Your task to perform on an android device: Open calendar and show me the third week of next month Image 0: 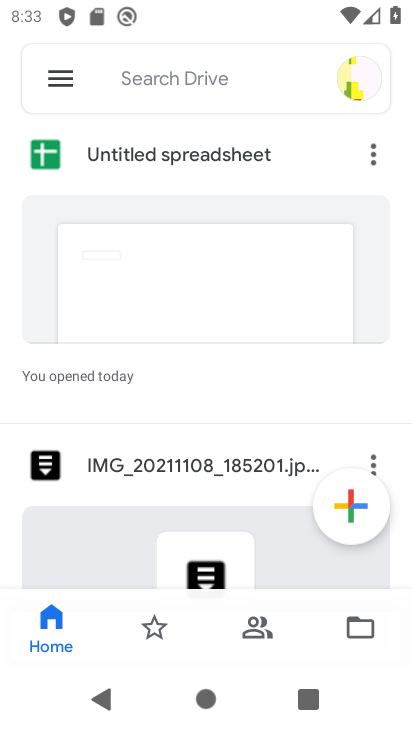
Step 0: press home button
Your task to perform on an android device: Open calendar and show me the third week of next month Image 1: 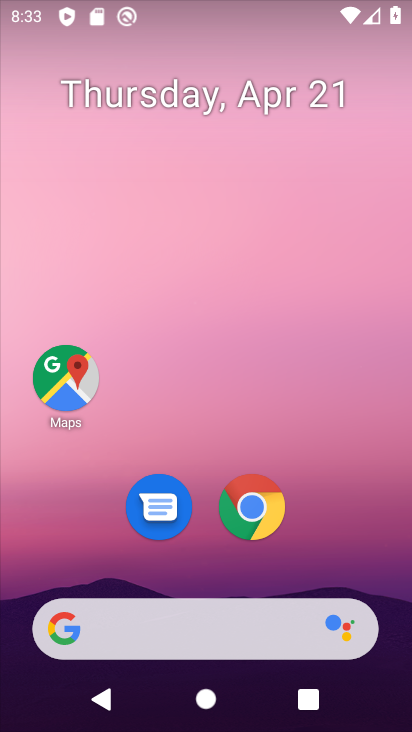
Step 1: drag from (340, 553) to (355, 146)
Your task to perform on an android device: Open calendar and show me the third week of next month Image 2: 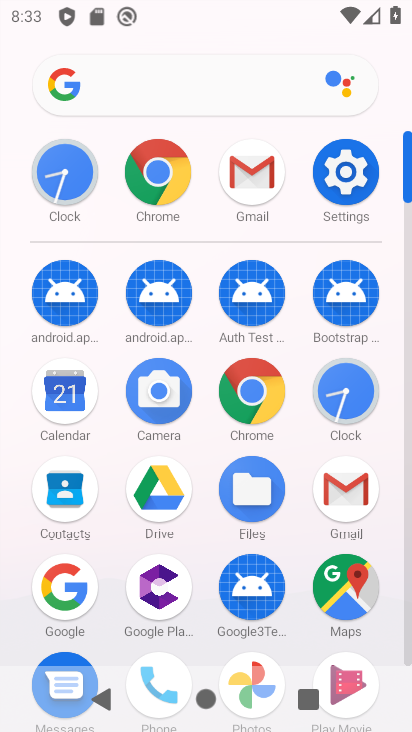
Step 2: drag from (377, 454) to (367, 199)
Your task to perform on an android device: Open calendar and show me the third week of next month Image 3: 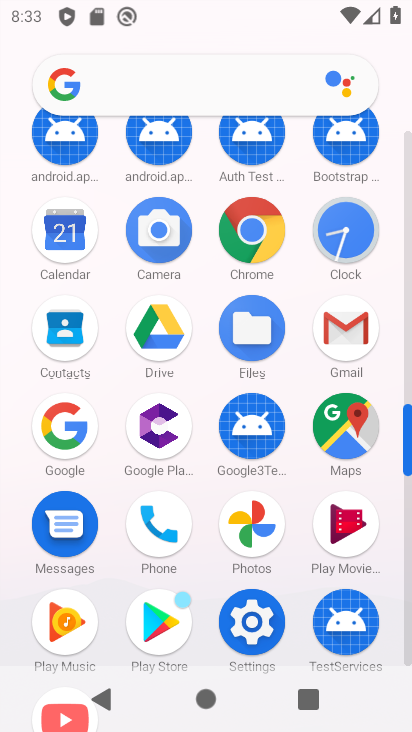
Step 3: click (72, 240)
Your task to perform on an android device: Open calendar and show me the third week of next month Image 4: 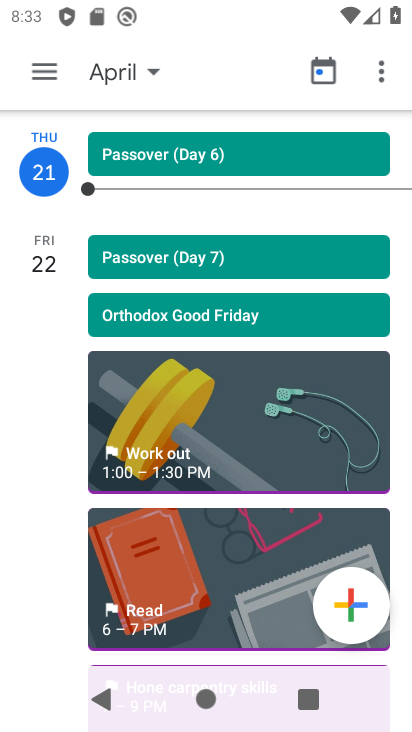
Step 4: click (125, 68)
Your task to perform on an android device: Open calendar and show me the third week of next month Image 5: 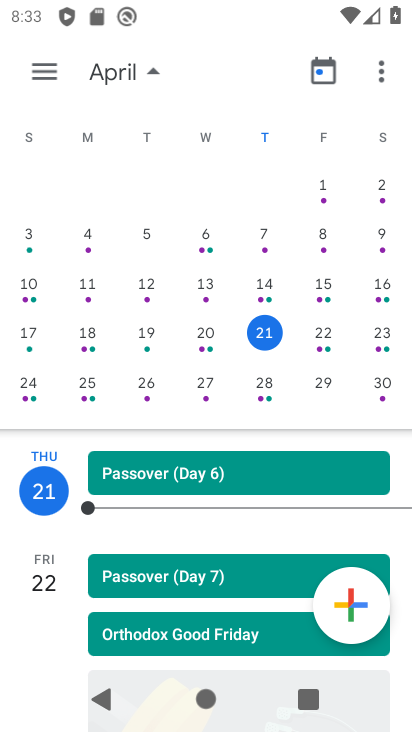
Step 5: drag from (375, 162) to (7, 182)
Your task to perform on an android device: Open calendar and show me the third week of next month Image 6: 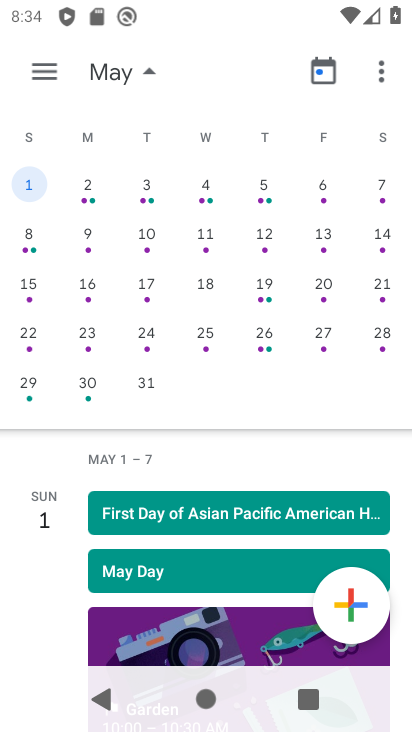
Step 6: click (26, 287)
Your task to perform on an android device: Open calendar and show me the third week of next month Image 7: 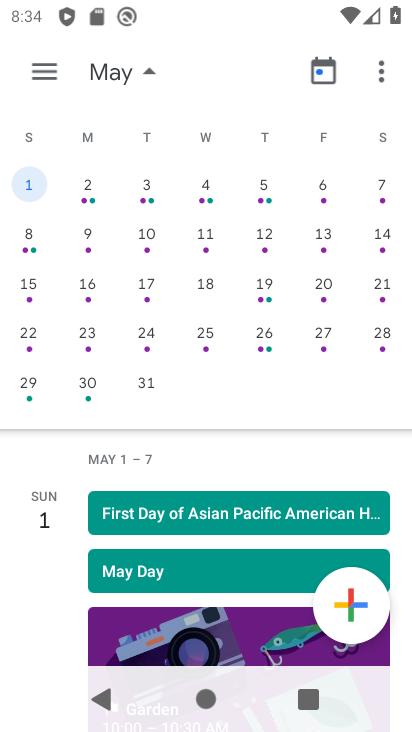
Step 7: click (29, 286)
Your task to perform on an android device: Open calendar and show me the third week of next month Image 8: 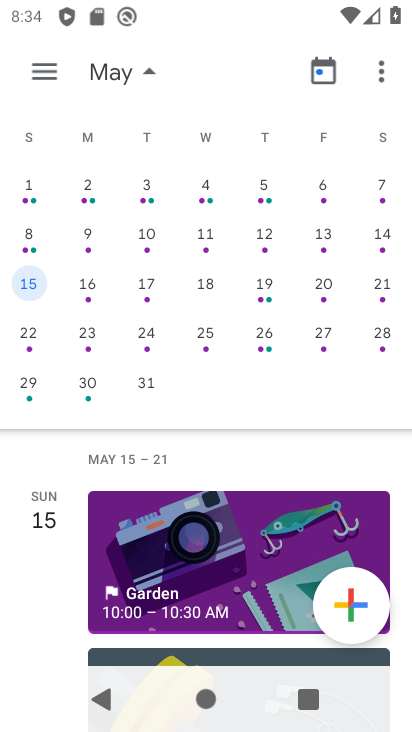
Step 8: task complete